Your task to perform on an android device: Go to display settings Image 0: 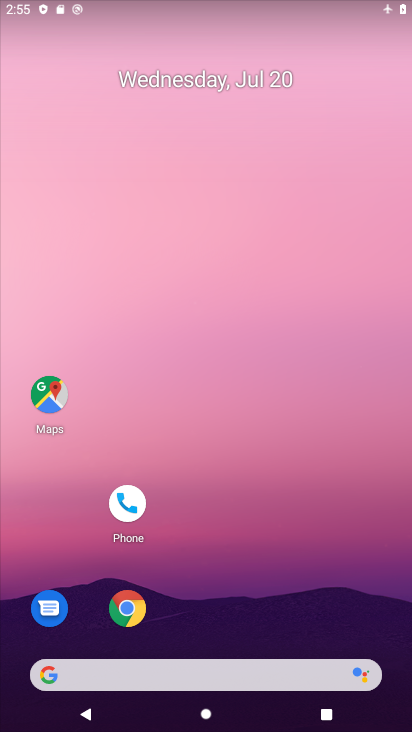
Step 0: drag from (288, 577) to (267, 117)
Your task to perform on an android device: Go to display settings Image 1: 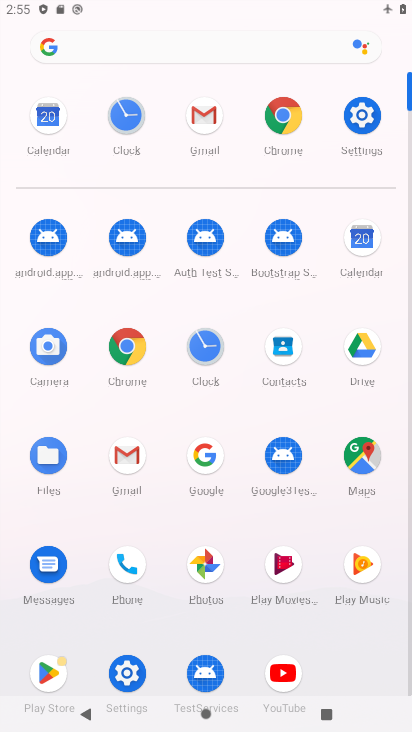
Step 1: click (368, 119)
Your task to perform on an android device: Go to display settings Image 2: 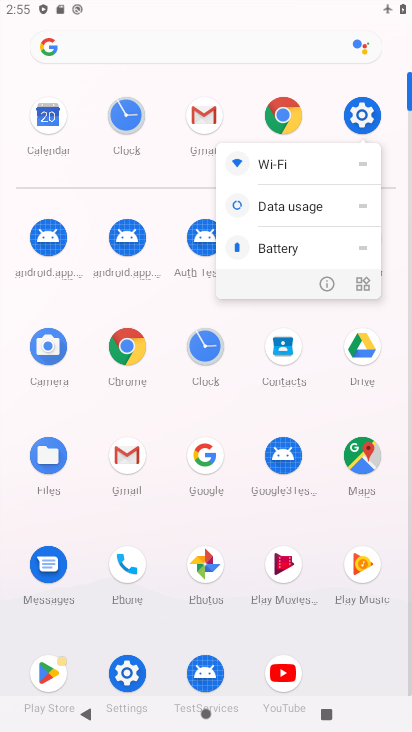
Step 2: click (368, 119)
Your task to perform on an android device: Go to display settings Image 3: 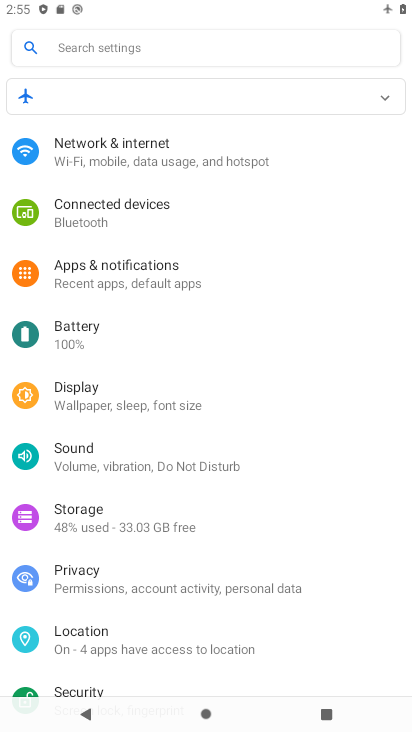
Step 3: click (118, 396)
Your task to perform on an android device: Go to display settings Image 4: 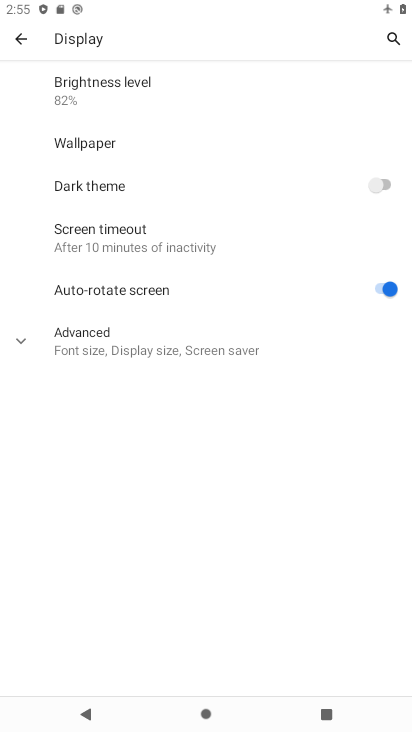
Step 4: task complete